Your task to perform on an android device: Empty the shopping cart on costco. Search for "lenovo thinkpad" on costco, select the first entry, and add it to the cart. Image 0: 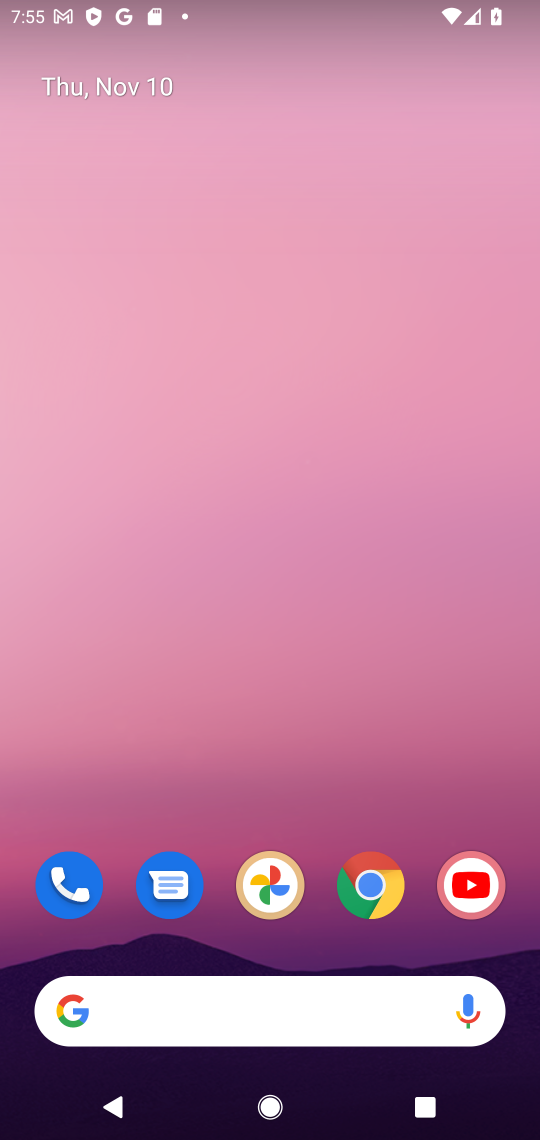
Step 0: click (367, 877)
Your task to perform on an android device: Empty the shopping cart on costco. Search for "lenovo thinkpad" on costco, select the first entry, and add it to the cart. Image 1: 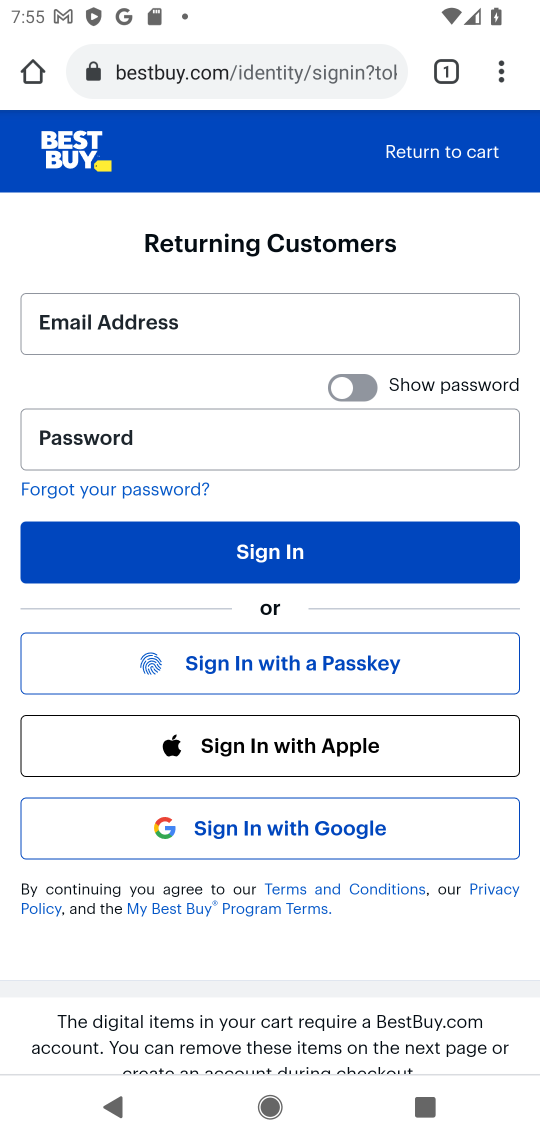
Step 1: click (302, 81)
Your task to perform on an android device: Empty the shopping cart on costco. Search for "lenovo thinkpad" on costco, select the first entry, and add it to the cart. Image 2: 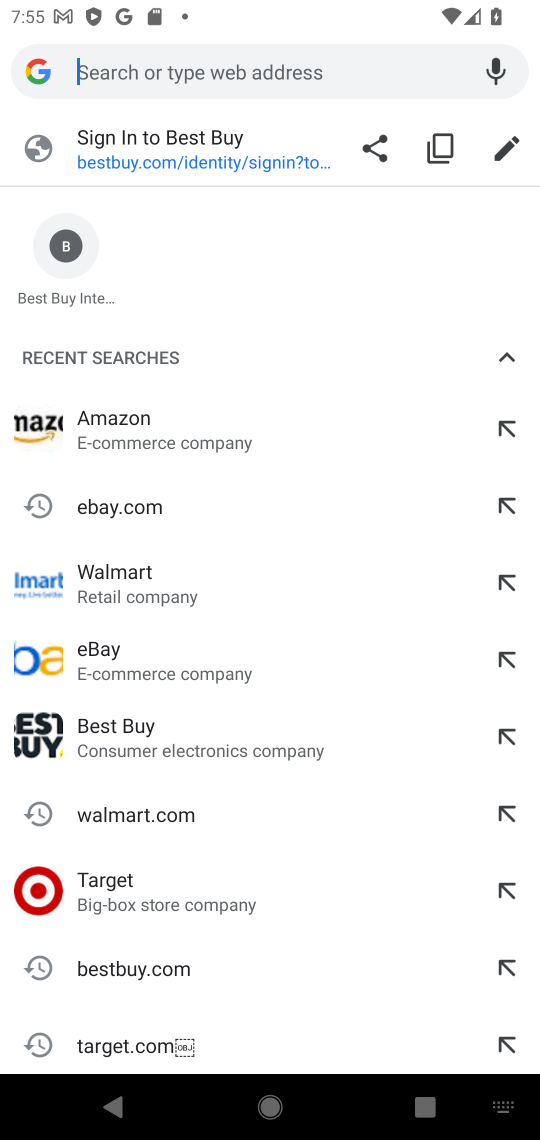
Step 2: drag from (203, 943) to (262, 324)
Your task to perform on an android device: Empty the shopping cart on costco. Search for "lenovo thinkpad" on costco, select the first entry, and add it to the cart. Image 3: 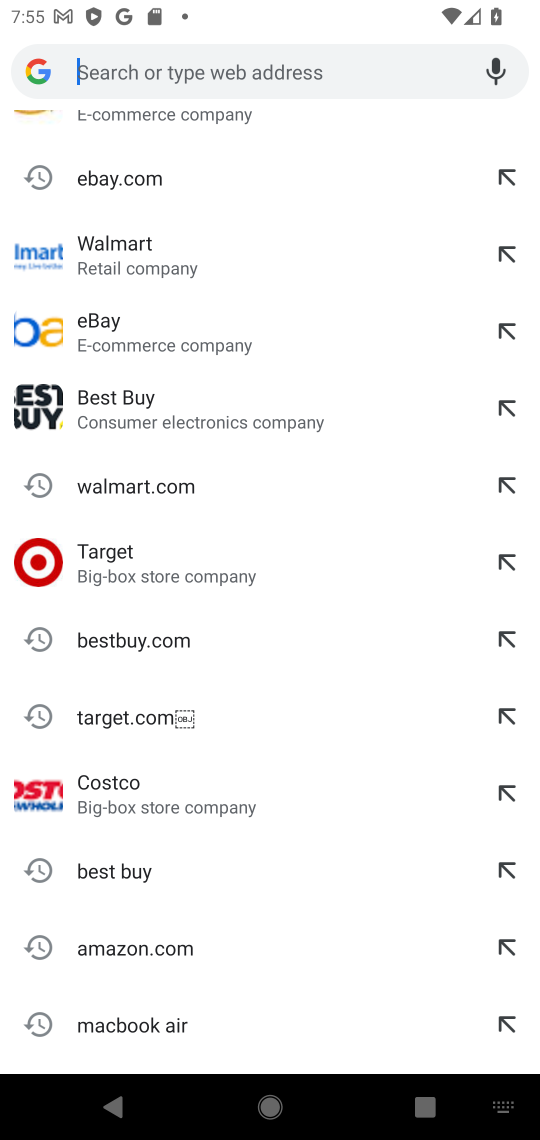
Step 3: click (116, 787)
Your task to perform on an android device: Empty the shopping cart on costco. Search for "lenovo thinkpad" on costco, select the first entry, and add it to the cart. Image 4: 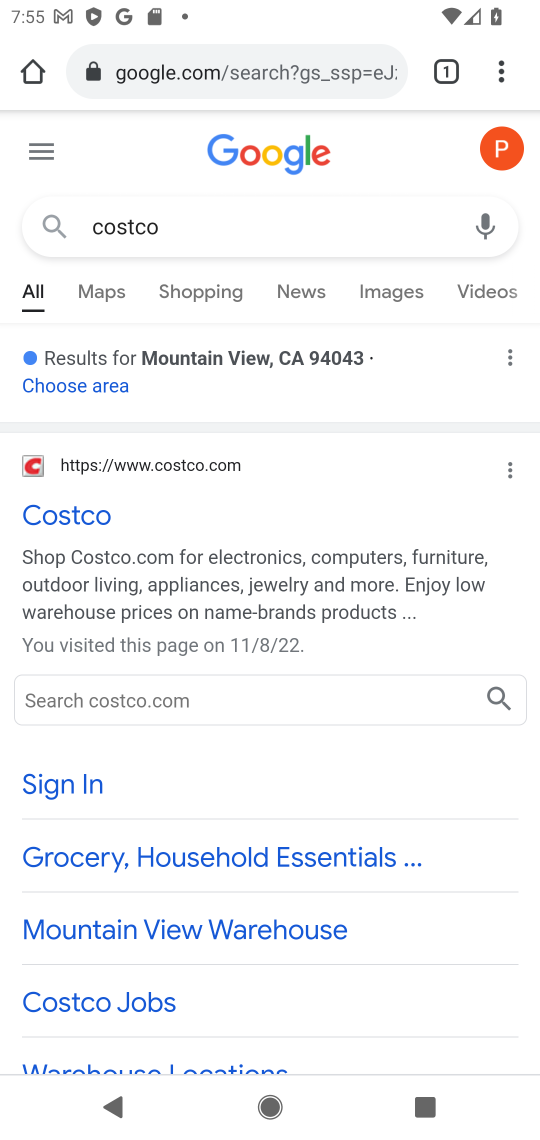
Step 4: click (201, 457)
Your task to perform on an android device: Empty the shopping cart on costco. Search for "lenovo thinkpad" on costco, select the first entry, and add it to the cart. Image 5: 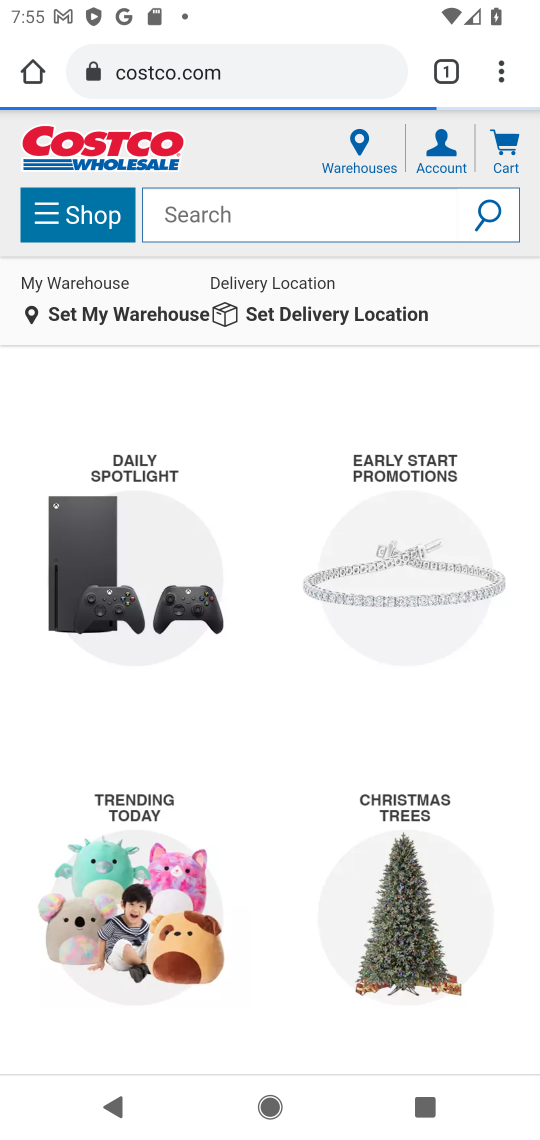
Step 5: click (506, 146)
Your task to perform on an android device: Empty the shopping cart on costco. Search for "lenovo thinkpad" on costco, select the first entry, and add it to the cart. Image 6: 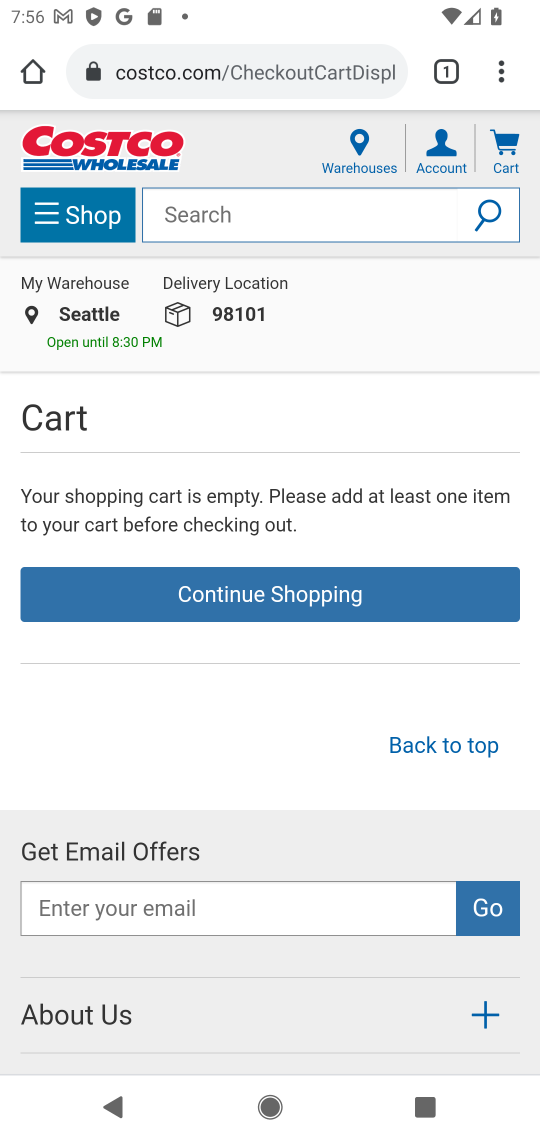
Step 6: click (266, 220)
Your task to perform on an android device: Empty the shopping cart on costco. Search for "lenovo thinkpad" on costco, select the first entry, and add it to the cart. Image 7: 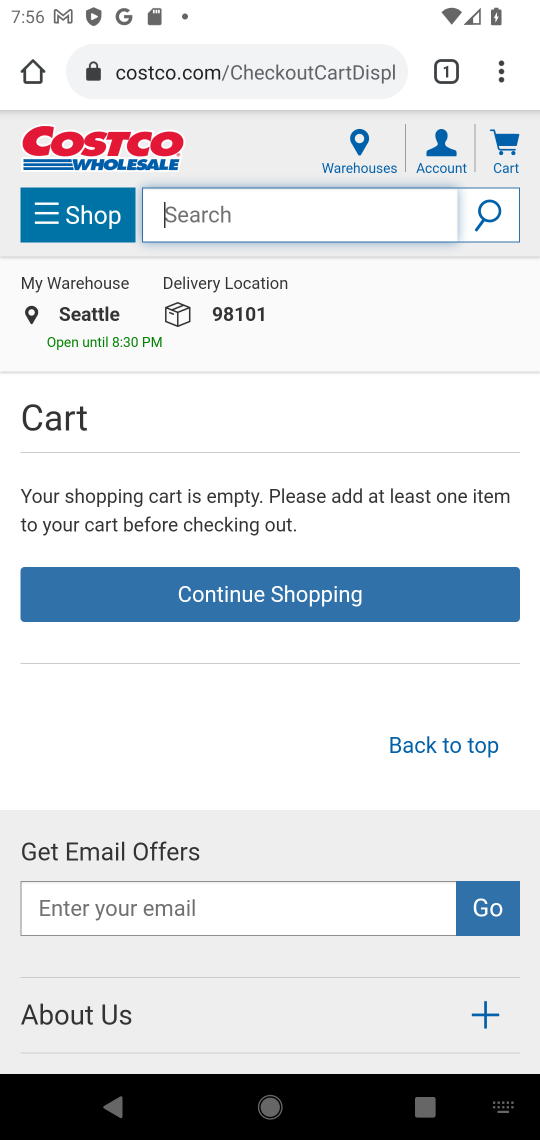
Step 7: press enter
Your task to perform on an android device: Empty the shopping cart on costco. Search for "lenovo thinkpad" on costco, select the first entry, and add it to the cart. Image 8: 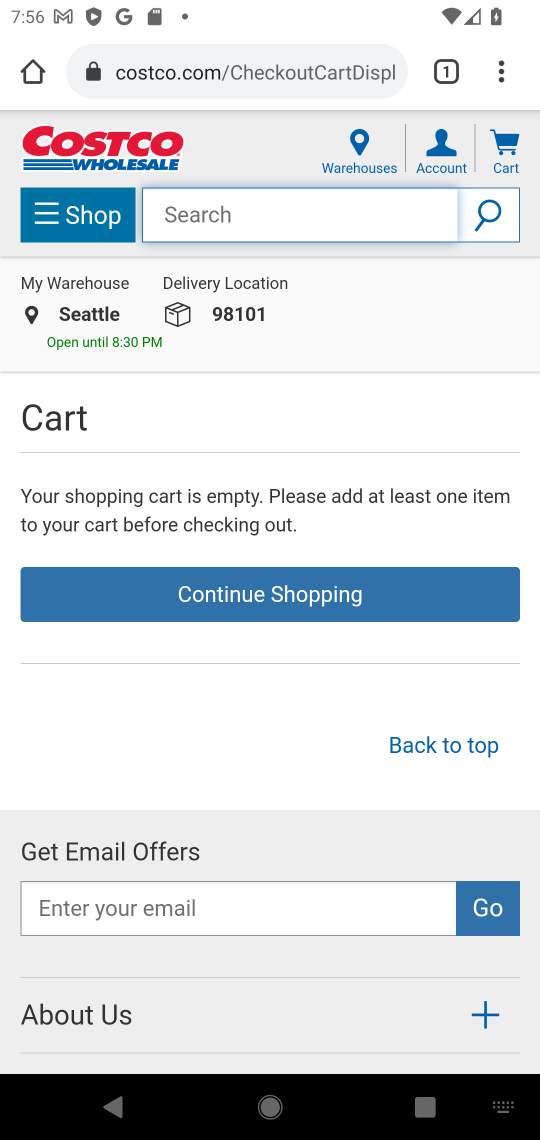
Step 8: type "lenovo thinkpad"
Your task to perform on an android device: Empty the shopping cart on costco. Search for "lenovo thinkpad" on costco, select the first entry, and add it to the cart. Image 9: 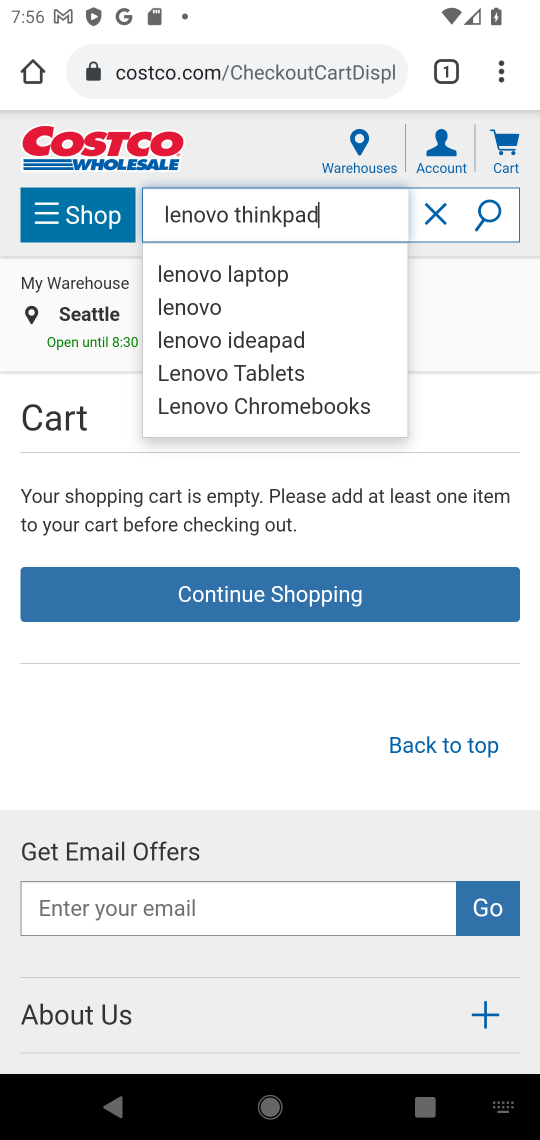
Step 9: click (479, 209)
Your task to perform on an android device: Empty the shopping cart on costco. Search for "lenovo thinkpad" on costco, select the first entry, and add it to the cart. Image 10: 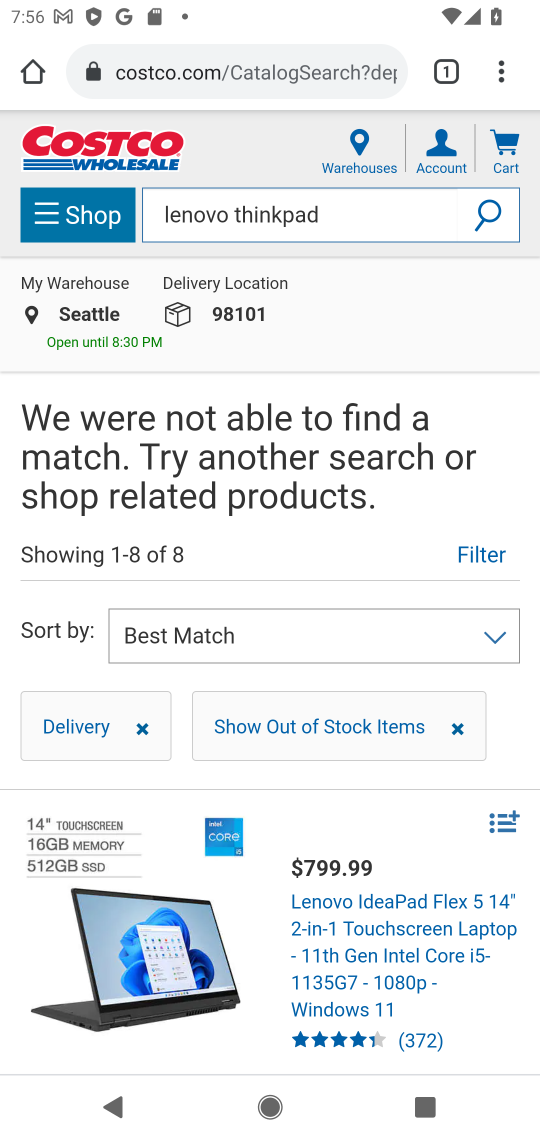
Step 10: task complete